Your task to perform on an android device: Go to battery settings Image 0: 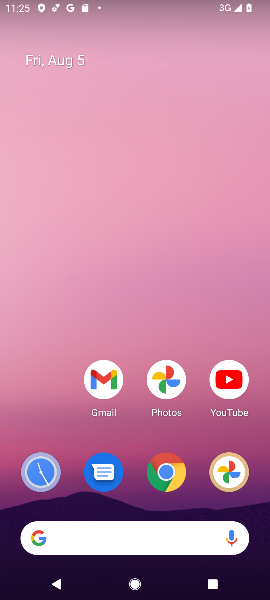
Step 0: drag from (201, 432) to (114, 52)
Your task to perform on an android device: Go to battery settings Image 1: 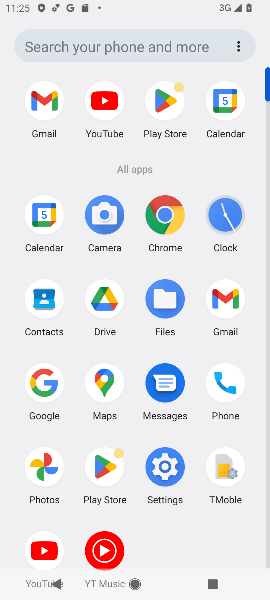
Step 1: click (166, 455)
Your task to perform on an android device: Go to battery settings Image 2: 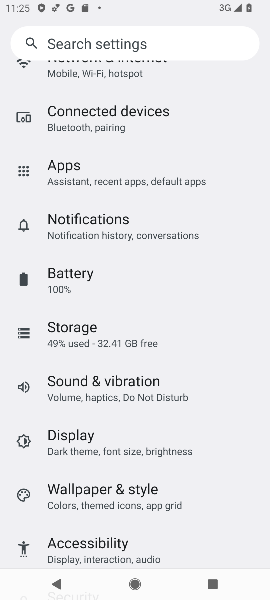
Step 2: click (113, 281)
Your task to perform on an android device: Go to battery settings Image 3: 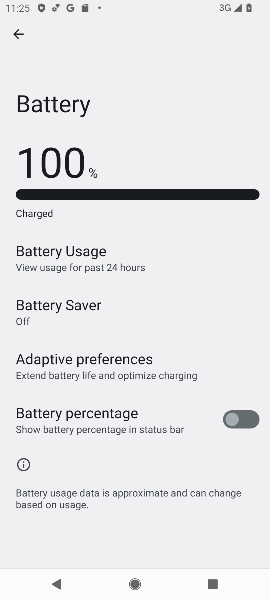
Step 3: task complete